Your task to perform on an android device: Go to battery settings Image 0: 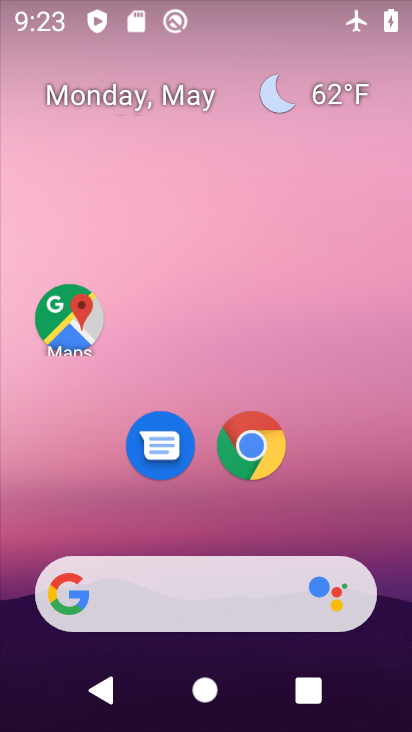
Step 0: drag from (395, 612) to (254, 124)
Your task to perform on an android device: Go to battery settings Image 1: 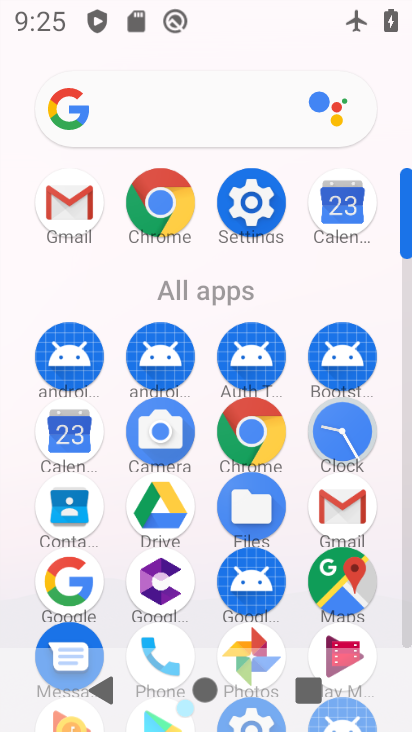
Step 1: click (240, 192)
Your task to perform on an android device: Go to battery settings Image 2: 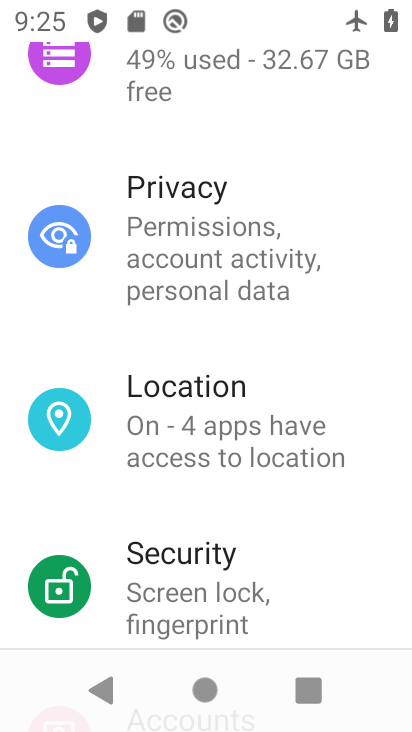
Step 2: drag from (190, 388) to (212, 558)
Your task to perform on an android device: Go to battery settings Image 3: 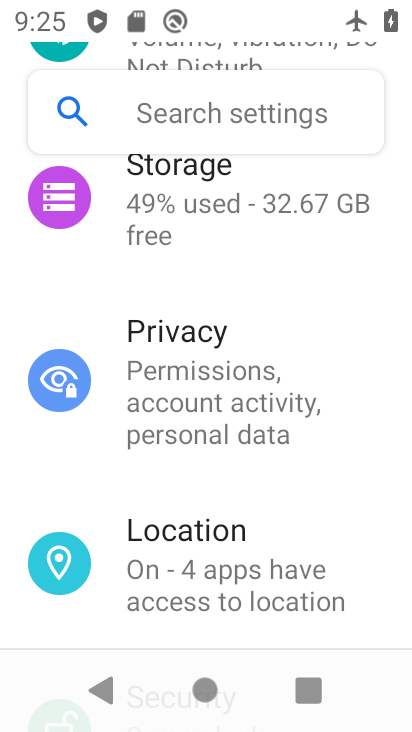
Step 3: drag from (288, 172) to (243, 492)
Your task to perform on an android device: Go to battery settings Image 4: 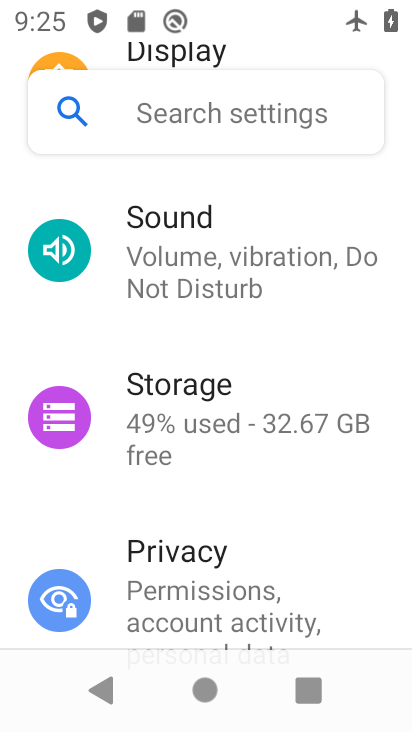
Step 4: drag from (241, 397) to (212, 695)
Your task to perform on an android device: Go to battery settings Image 5: 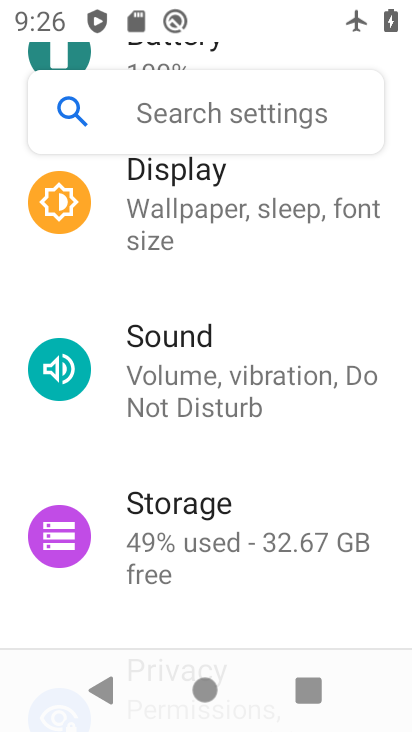
Step 5: drag from (236, 279) to (218, 660)
Your task to perform on an android device: Go to battery settings Image 6: 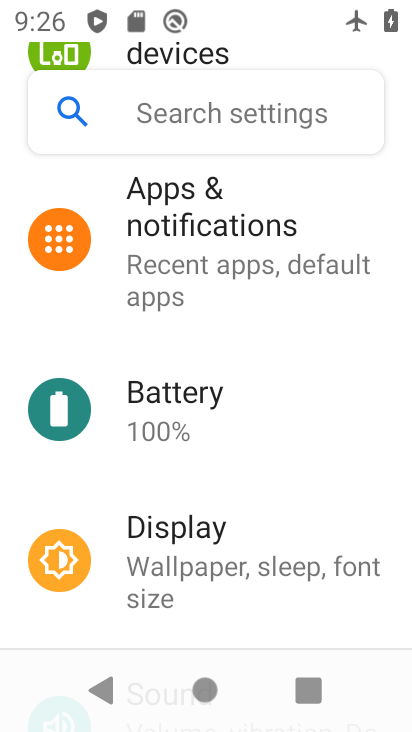
Step 6: click (226, 418)
Your task to perform on an android device: Go to battery settings Image 7: 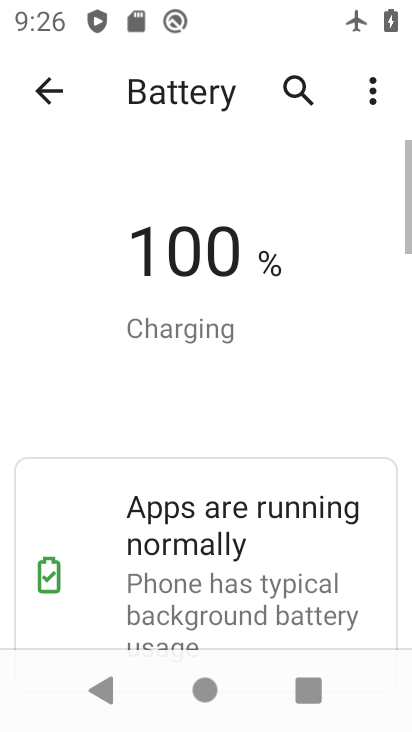
Step 7: task complete